Your task to perform on an android device: find snoozed emails in the gmail app Image 0: 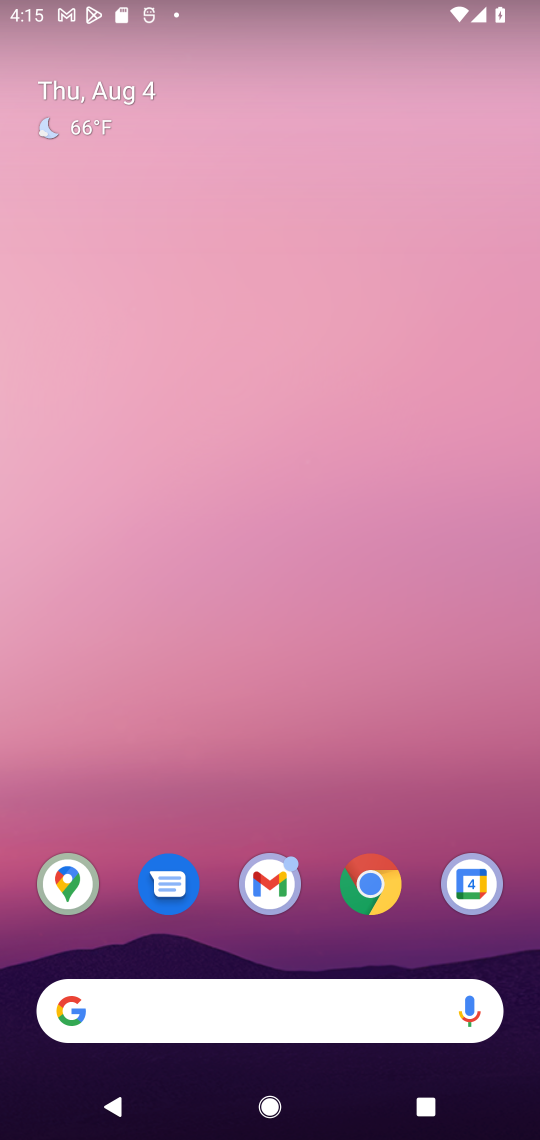
Step 0: click (284, 890)
Your task to perform on an android device: find snoozed emails in the gmail app Image 1: 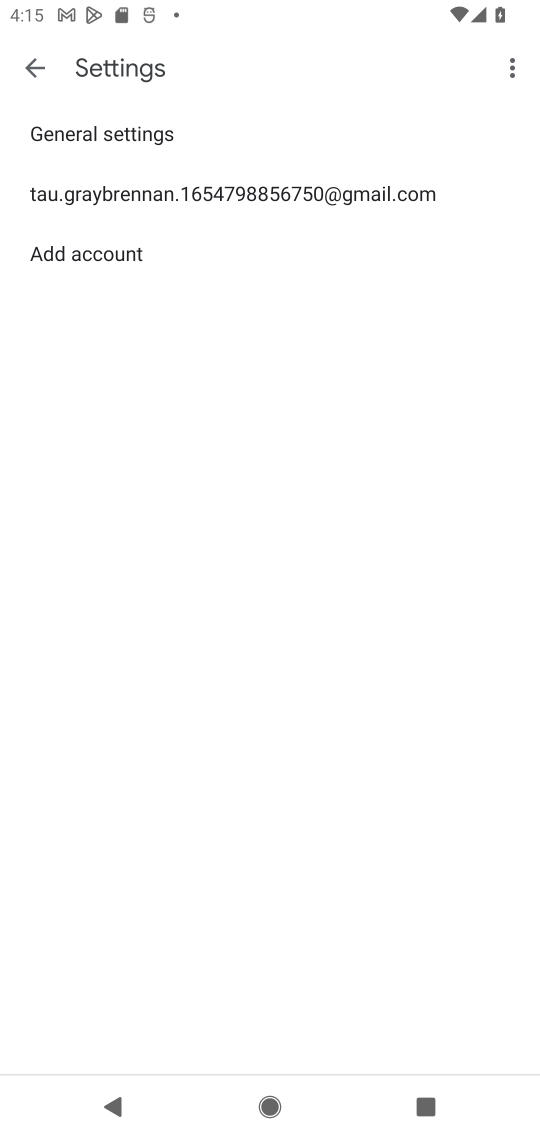
Step 1: task complete